Your task to perform on an android device: Open Yahoo.com Image 0: 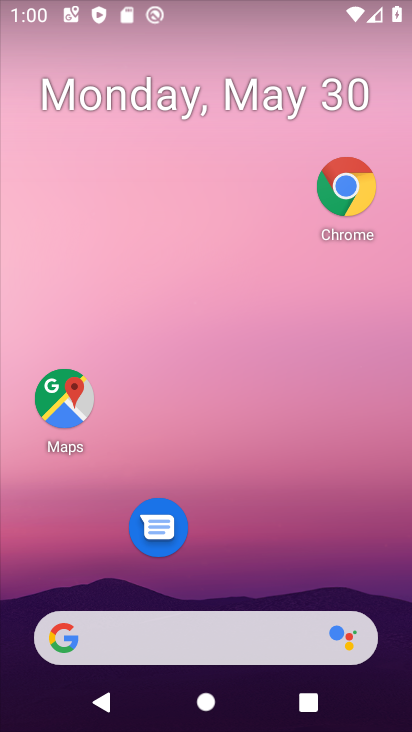
Step 0: click (265, 21)
Your task to perform on an android device: Open Yahoo.com Image 1: 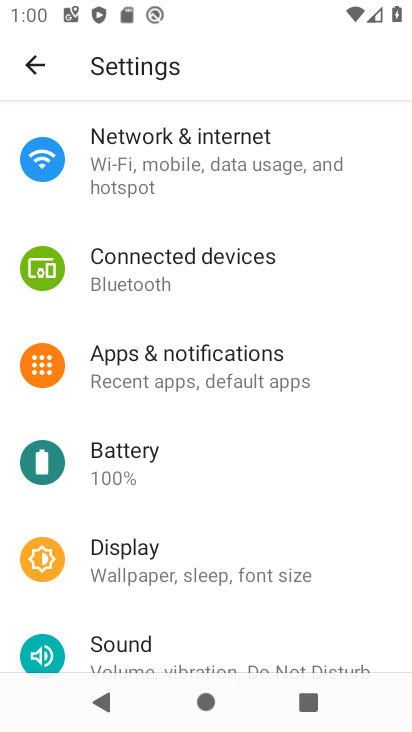
Step 1: press home button
Your task to perform on an android device: Open Yahoo.com Image 2: 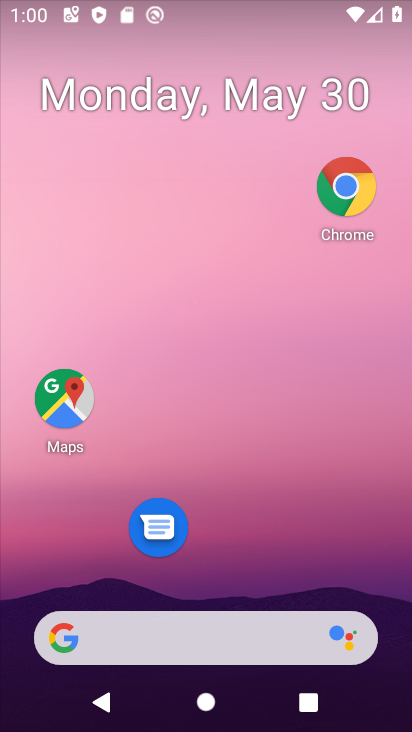
Step 2: click (157, 632)
Your task to perform on an android device: Open Yahoo.com Image 3: 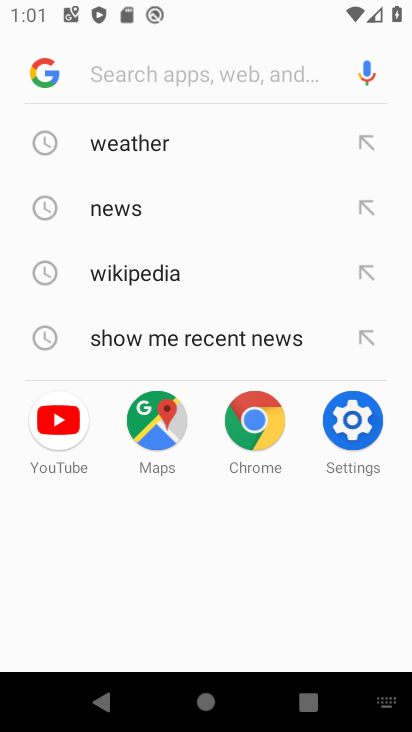
Step 3: type "Yahoo.com"
Your task to perform on an android device: Open Yahoo.com Image 4: 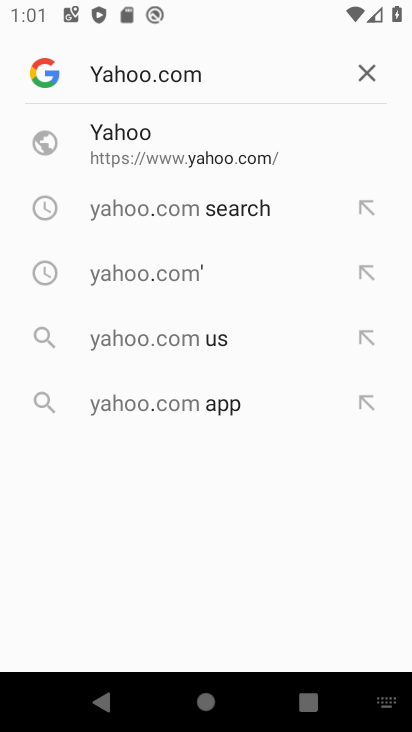
Step 4: click (105, 123)
Your task to perform on an android device: Open Yahoo.com Image 5: 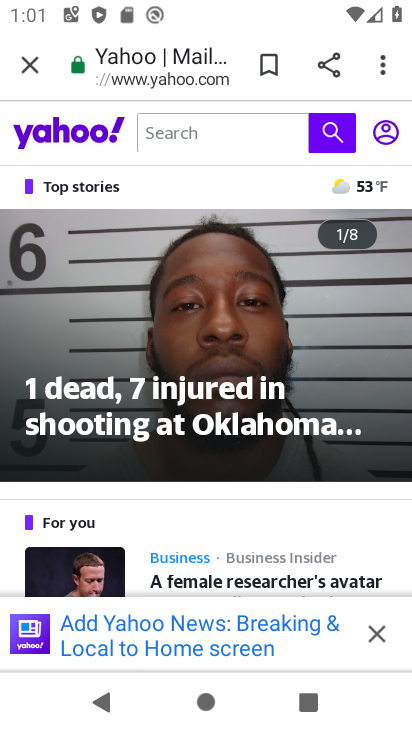
Step 5: task complete